Your task to perform on an android device: open a bookmark in the chrome app Image 0: 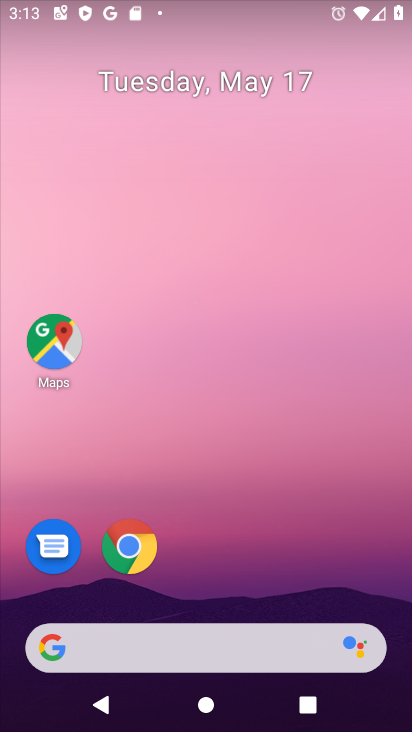
Step 0: click (137, 540)
Your task to perform on an android device: open a bookmark in the chrome app Image 1: 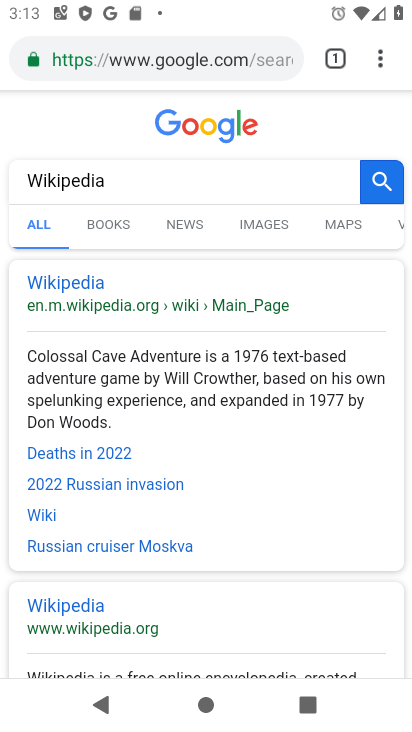
Step 1: click (383, 54)
Your task to perform on an android device: open a bookmark in the chrome app Image 2: 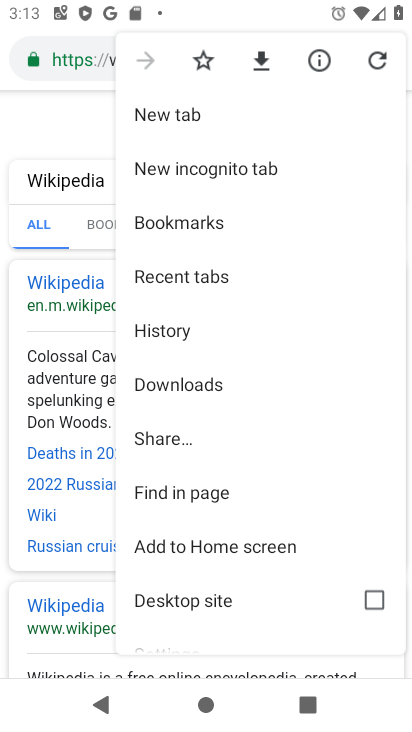
Step 2: click (171, 218)
Your task to perform on an android device: open a bookmark in the chrome app Image 3: 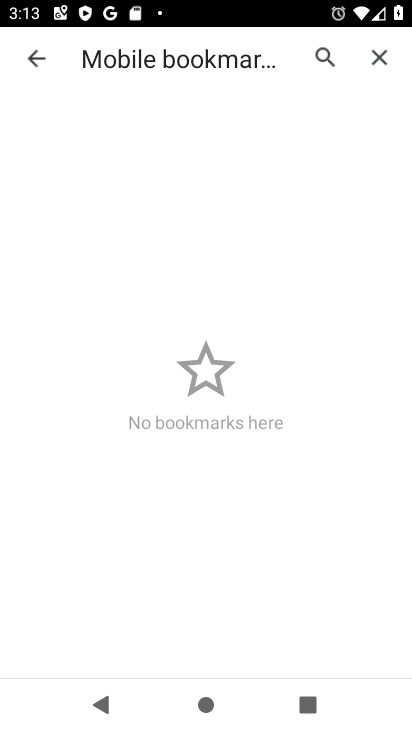
Step 3: task complete